Your task to perform on an android device: Show me productivity apps on the Play Store Image 0: 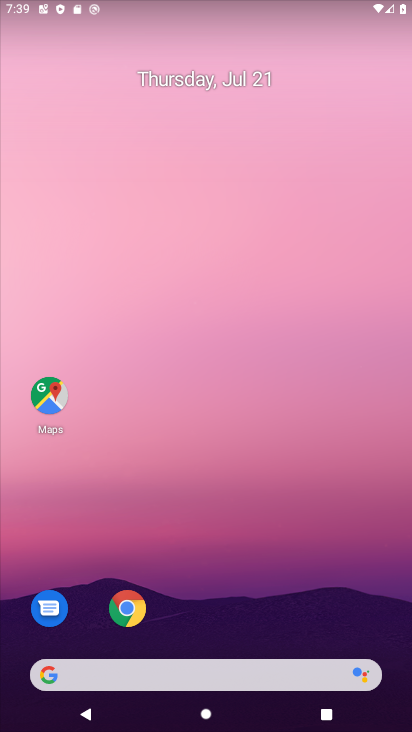
Step 0: drag from (165, 671) to (331, 175)
Your task to perform on an android device: Show me productivity apps on the Play Store Image 1: 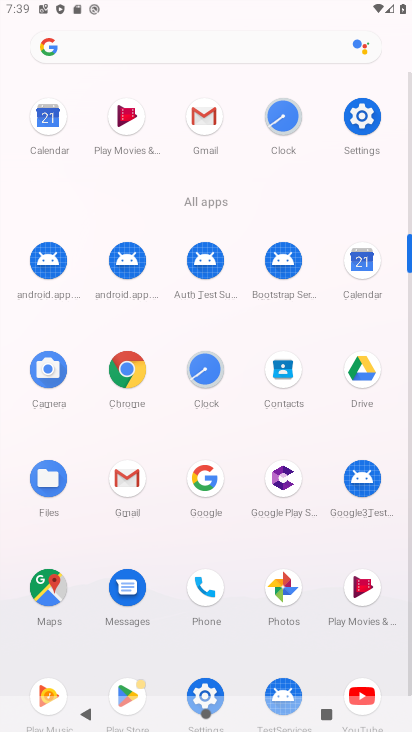
Step 1: drag from (169, 633) to (168, 509)
Your task to perform on an android device: Show me productivity apps on the Play Store Image 2: 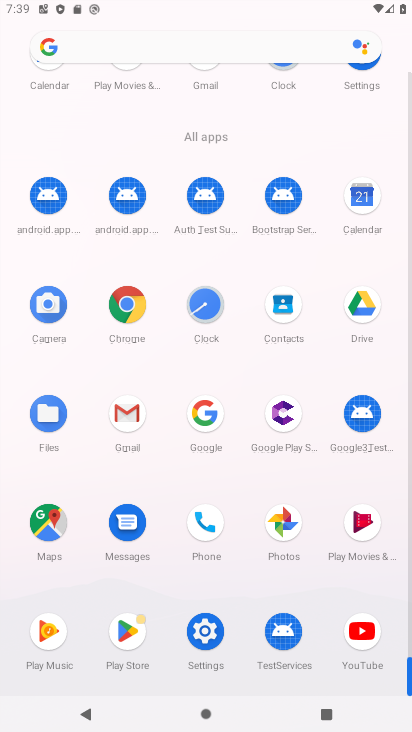
Step 2: click (134, 633)
Your task to perform on an android device: Show me productivity apps on the Play Store Image 3: 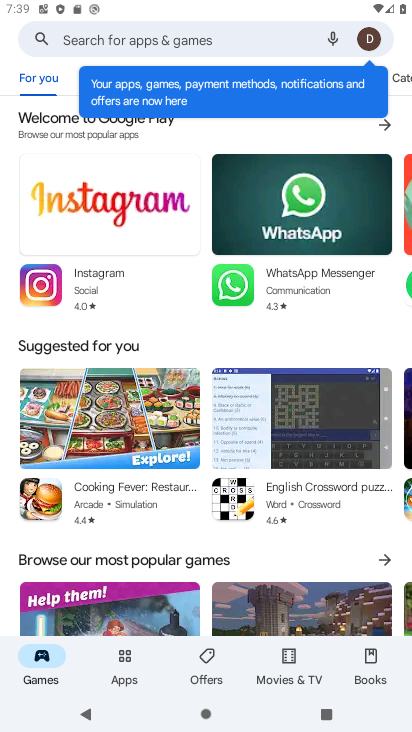
Step 3: click (122, 656)
Your task to perform on an android device: Show me productivity apps on the Play Store Image 4: 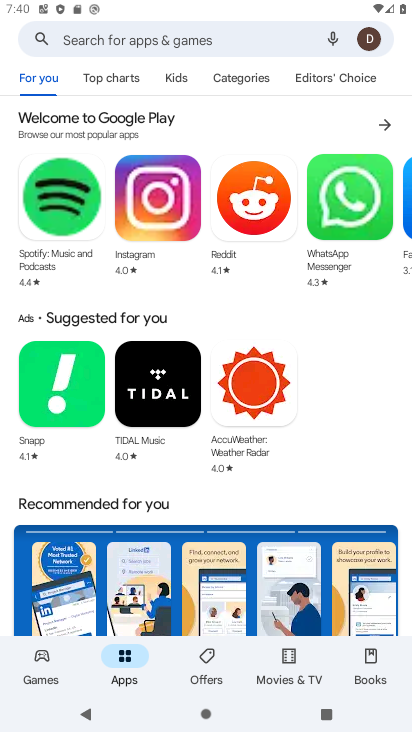
Step 4: click (229, 78)
Your task to perform on an android device: Show me productivity apps on the Play Store Image 5: 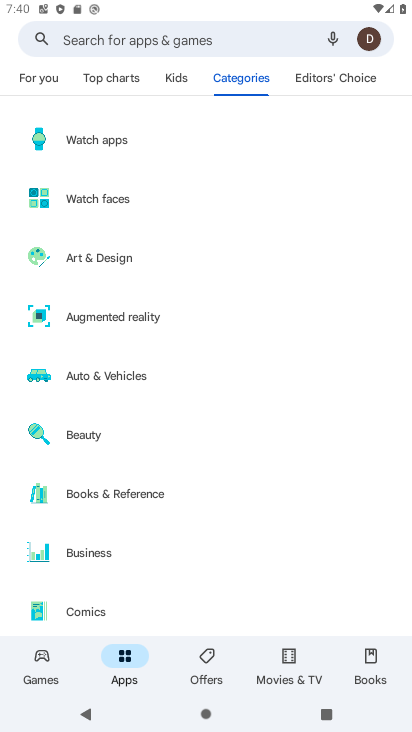
Step 5: drag from (92, 474) to (108, 370)
Your task to perform on an android device: Show me productivity apps on the Play Store Image 6: 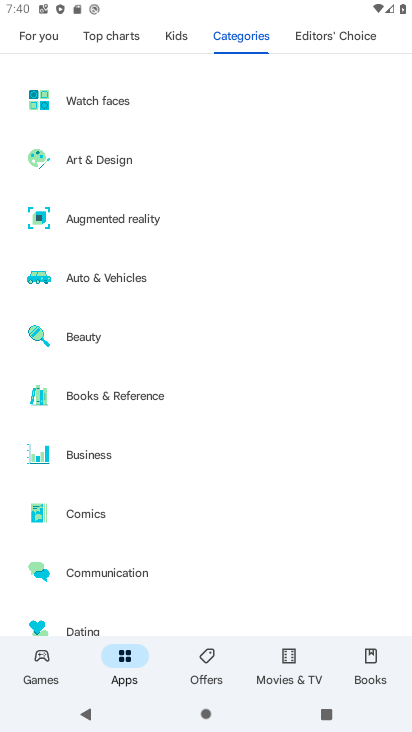
Step 6: drag from (82, 490) to (132, 385)
Your task to perform on an android device: Show me productivity apps on the Play Store Image 7: 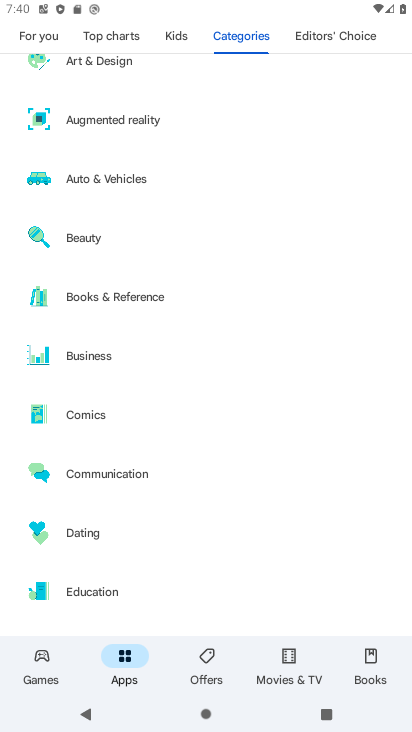
Step 7: drag from (82, 494) to (110, 423)
Your task to perform on an android device: Show me productivity apps on the Play Store Image 8: 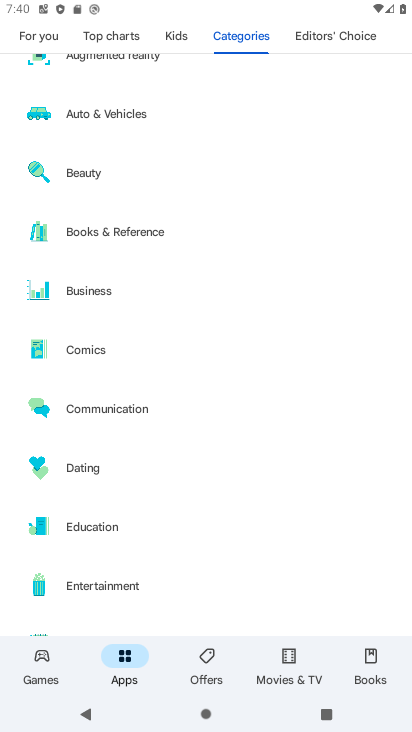
Step 8: drag from (118, 502) to (179, 376)
Your task to perform on an android device: Show me productivity apps on the Play Store Image 9: 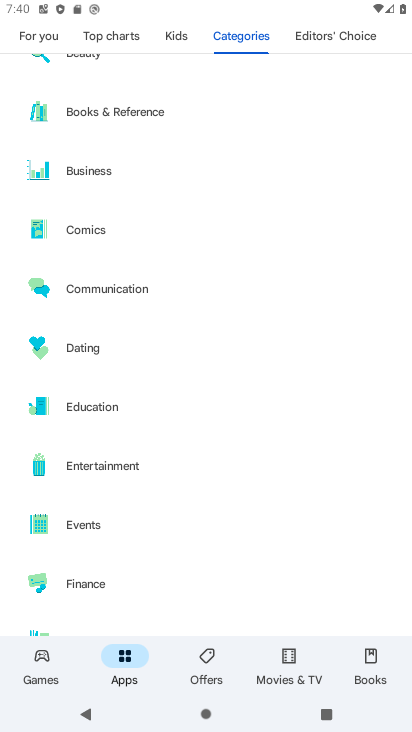
Step 9: drag from (98, 485) to (128, 409)
Your task to perform on an android device: Show me productivity apps on the Play Store Image 10: 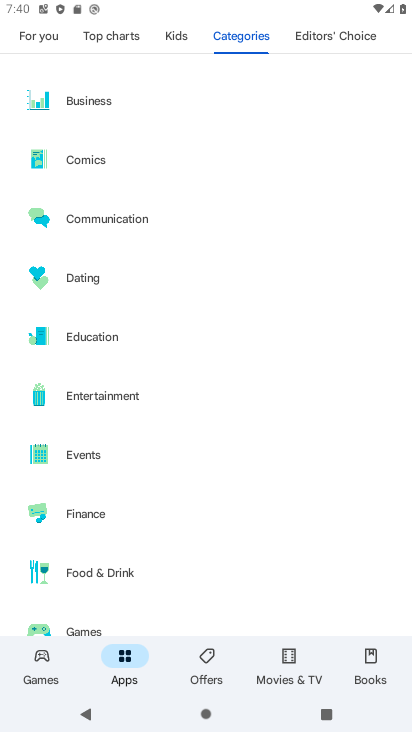
Step 10: drag from (95, 487) to (122, 403)
Your task to perform on an android device: Show me productivity apps on the Play Store Image 11: 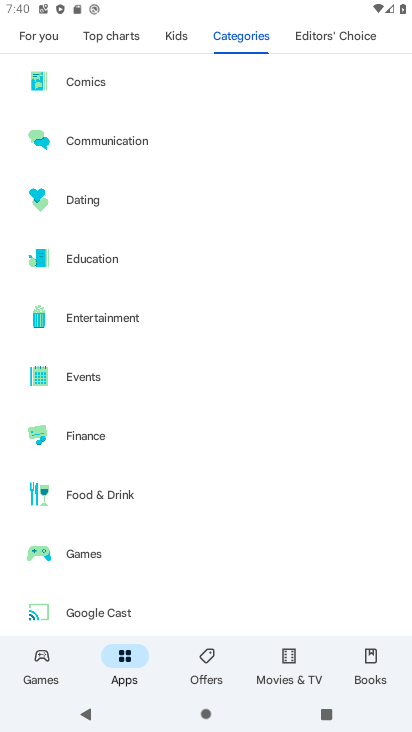
Step 11: drag from (86, 467) to (123, 394)
Your task to perform on an android device: Show me productivity apps on the Play Store Image 12: 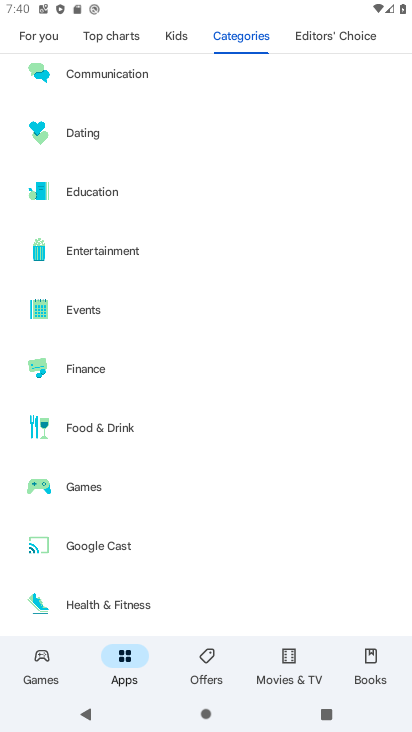
Step 12: drag from (83, 443) to (115, 364)
Your task to perform on an android device: Show me productivity apps on the Play Store Image 13: 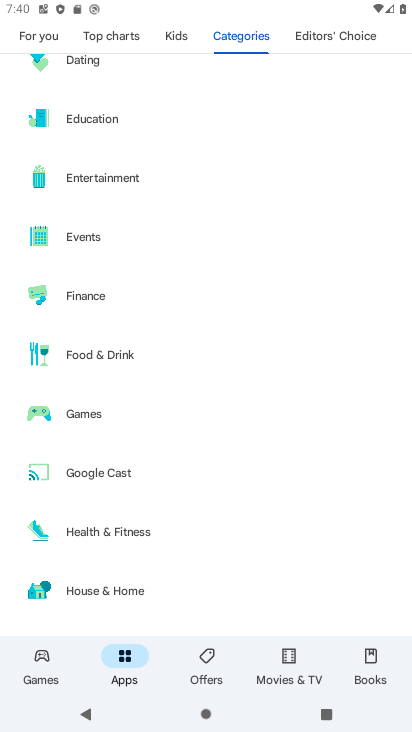
Step 13: drag from (82, 448) to (122, 378)
Your task to perform on an android device: Show me productivity apps on the Play Store Image 14: 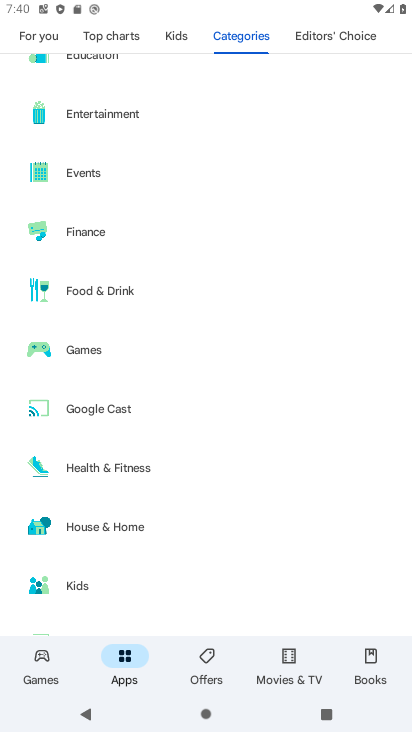
Step 14: drag from (92, 497) to (127, 396)
Your task to perform on an android device: Show me productivity apps on the Play Store Image 15: 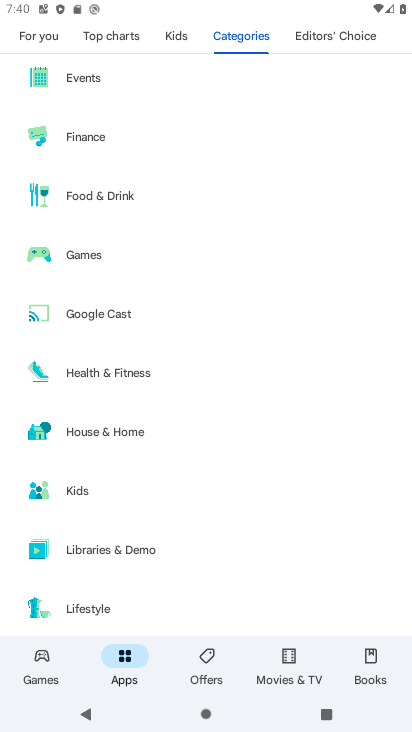
Step 15: drag from (92, 466) to (144, 370)
Your task to perform on an android device: Show me productivity apps on the Play Store Image 16: 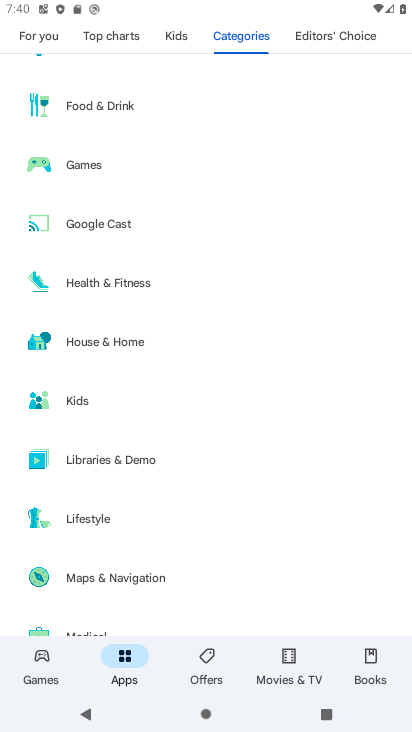
Step 16: drag from (78, 489) to (125, 384)
Your task to perform on an android device: Show me productivity apps on the Play Store Image 17: 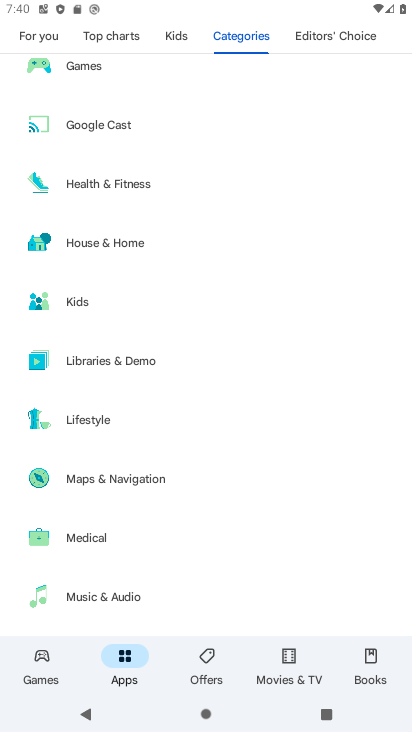
Step 17: drag from (80, 494) to (141, 402)
Your task to perform on an android device: Show me productivity apps on the Play Store Image 18: 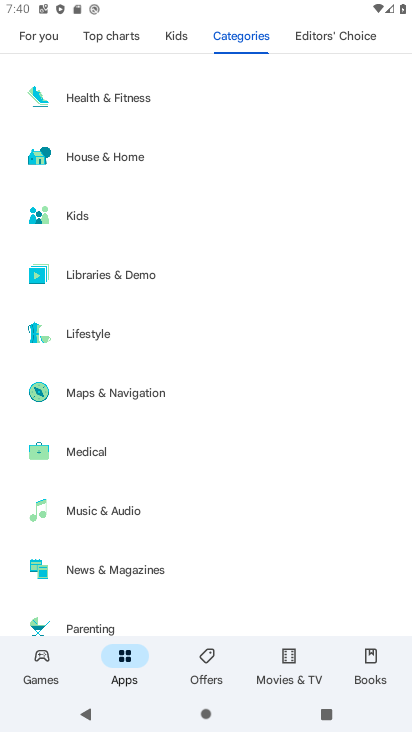
Step 18: drag from (75, 487) to (155, 390)
Your task to perform on an android device: Show me productivity apps on the Play Store Image 19: 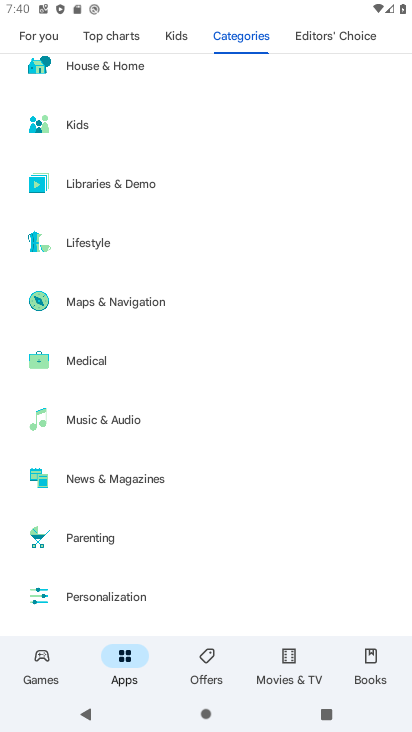
Step 19: drag from (75, 510) to (130, 425)
Your task to perform on an android device: Show me productivity apps on the Play Store Image 20: 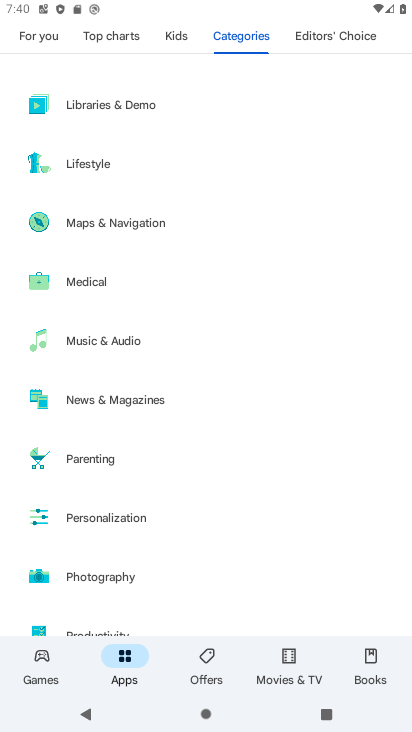
Step 20: drag from (77, 489) to (123, 411)
Your task to perform on an android device: Show me productivity apps on the Play Store Image 21: 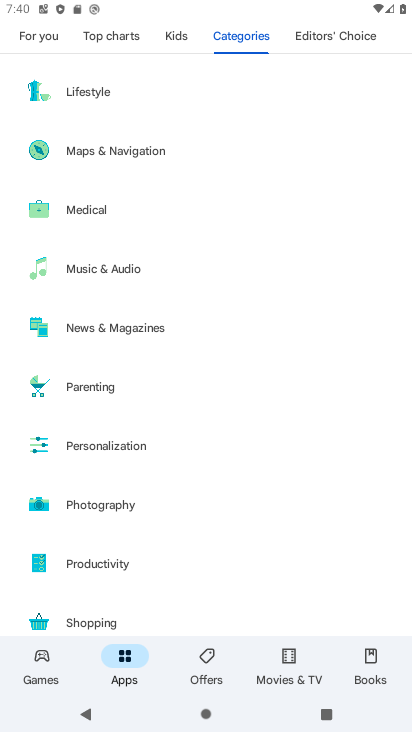
Step 21: drag from (79, 476) to (131, 395)
Your task to perform on an android device: Show me productivity apps on the Play Store Image 22: 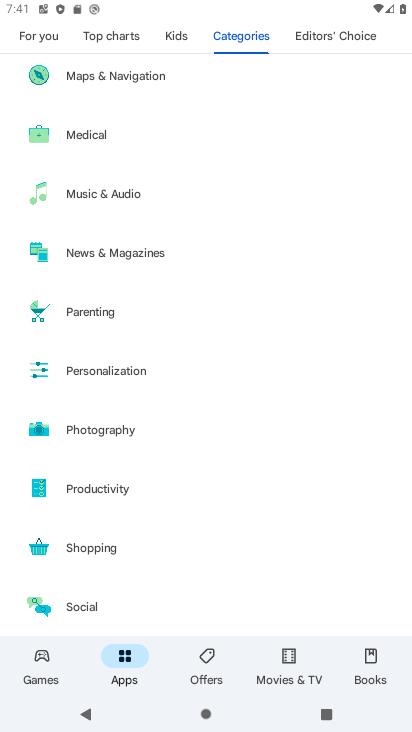
Step 22: click (103, 494)
Your task to perform on an android device: Show me productivity apps on the Play Store Image 23: 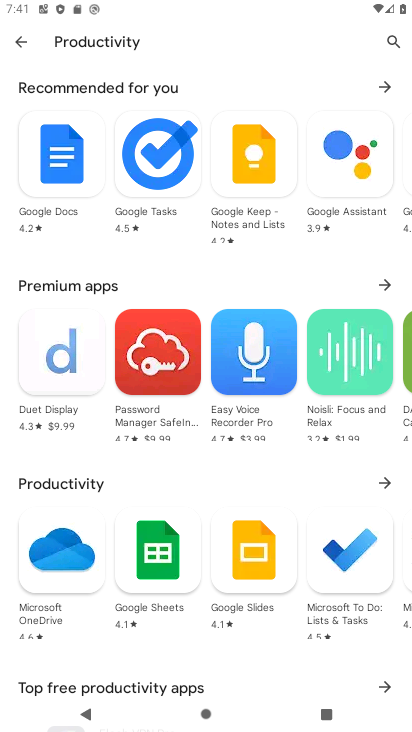
Step 23: task complete